Your task to perform on an android device: check battery use Image 0: 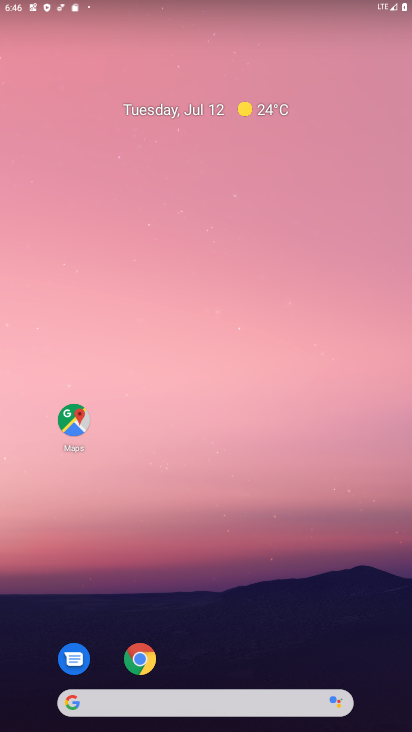
Step 0: drag from (359, 670) to (214, 7)
Your task to perform on an android device: check battery use Image 1: 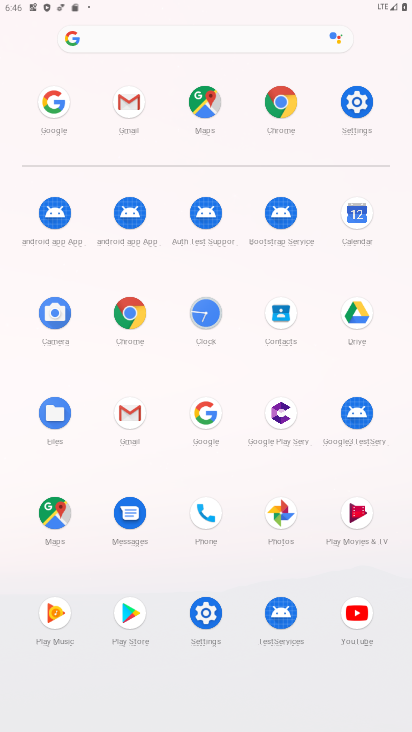
Step 1: click (360, 99)
Your task to perform on an android device: check battery use Image 2: 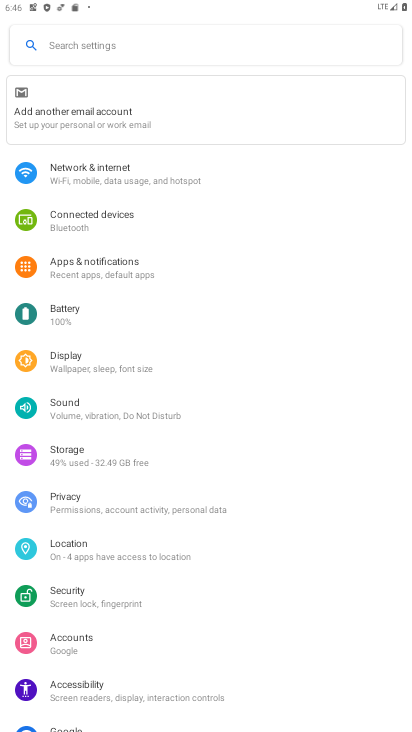
Step 2: click (78, 319)
Your task to perform on an android device: check battery use Image 3: 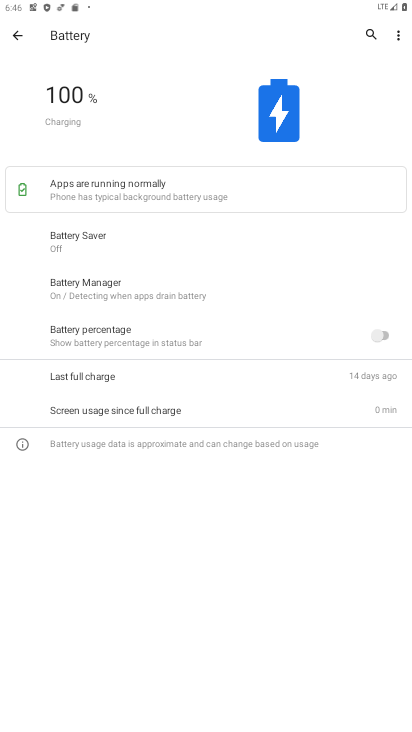
Step 3: click (399, 30)
Your task to perform on an android device: check battery use Image 4: 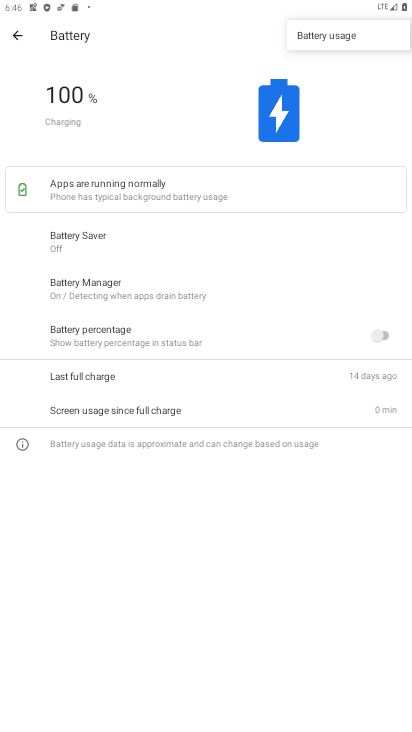
Step 4: click (345, 36)
Your task to perform on an android device: check battery use Image 5: 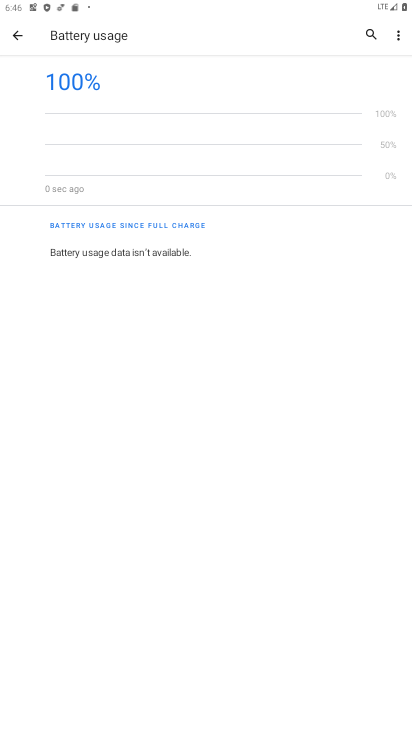
Step 5: task complete